Your task to perform on an android device: toggle data saver in the chrome app Image 0: 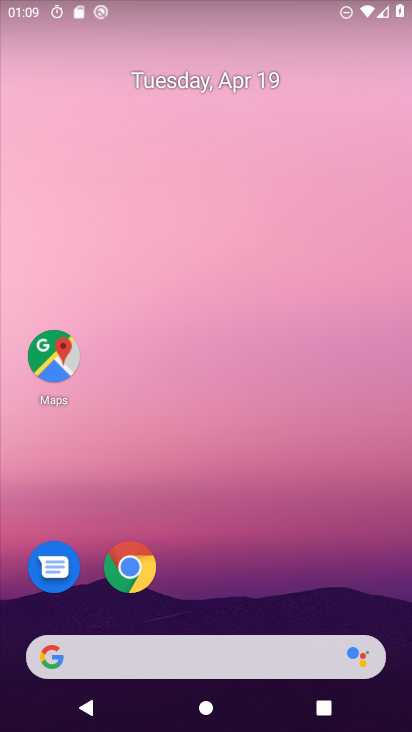
Step 0: drag from (301, 555) to (267, 116)
Your task to perform on an android device: toggle data saver in the chrome app Image 1: 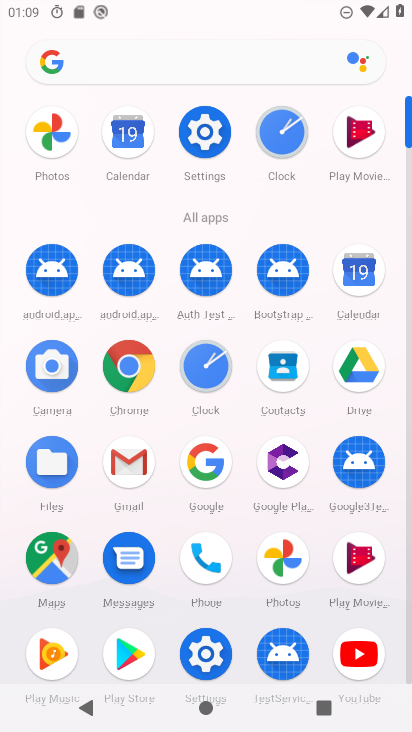
Step 1: click (129, 369)
Your task to perform on an android device: toggle data saver in the chrome app Image 2: 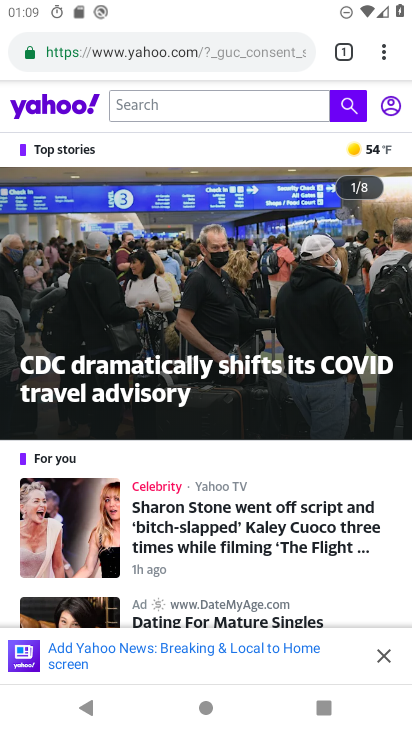
Step 2: click (382, 55)
Your task to perform on an android device: toggle data saver in the chrome app Image 3: 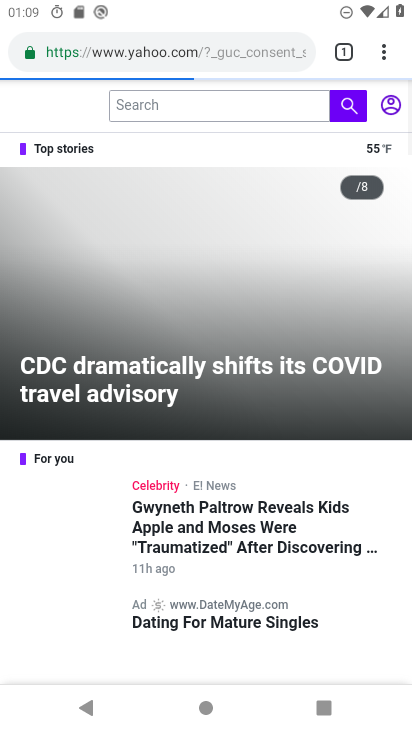
Step 3: drag from (384, 48) to (219, 622)
Your task to perform on an android device: toggle data saver in the chrome app Image 4: 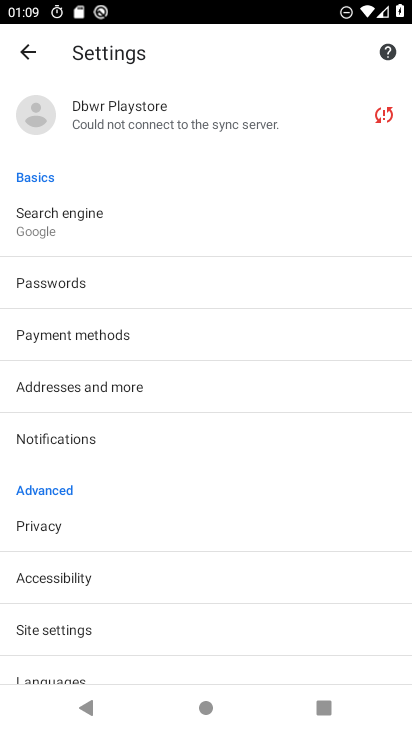
Step 4: click (94, 626)
Your task to perform on an android device: toggle data saver in the chrome app Image 5: 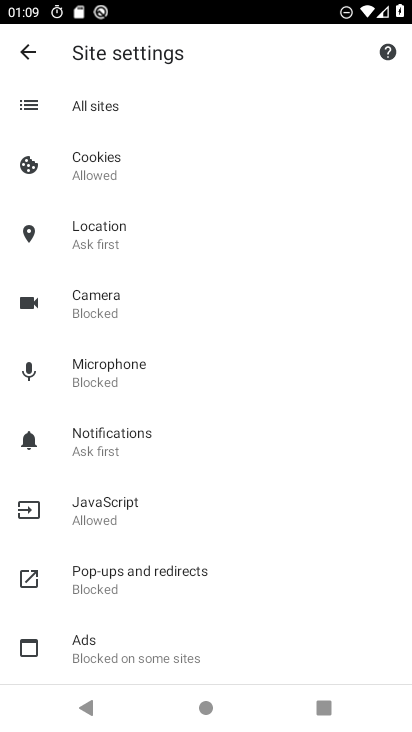
Step 5: drag from (277, 618) to (331, 92)
Your task to perform on an android device: toggle data saver in the chrome app Image 6: 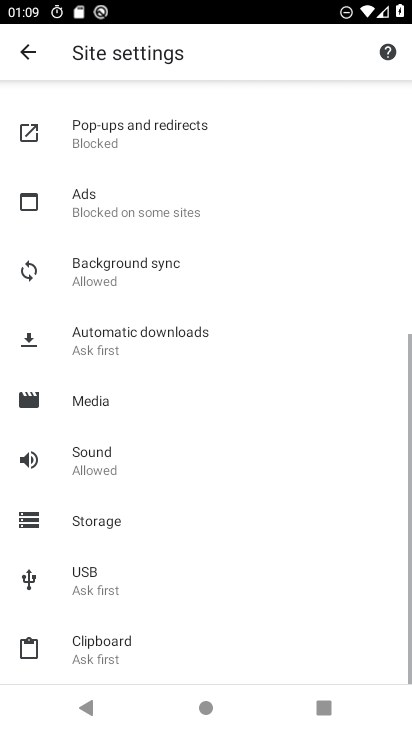
Step 6: drag from (303, 574) to (306, 70)
Your task to perform on an android device: toggle data saver in the chrome app Image 7: 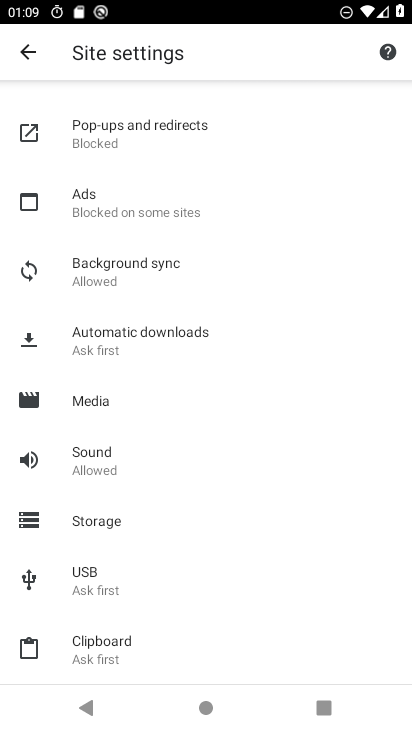
Step 7: drag from (185, 437) to (227, 119)
Your task to perform on an android device: toggle data saver in the chrome app Image 8: 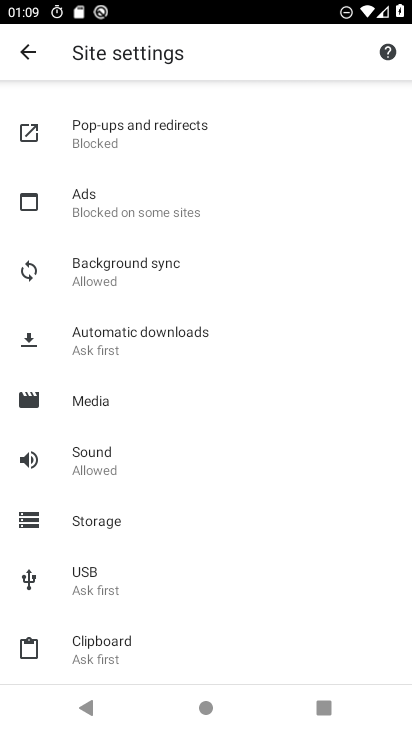
Step 8: click (35, 55)
Your task to perform on an android device: toggle data saver in the chrome app Image 9: 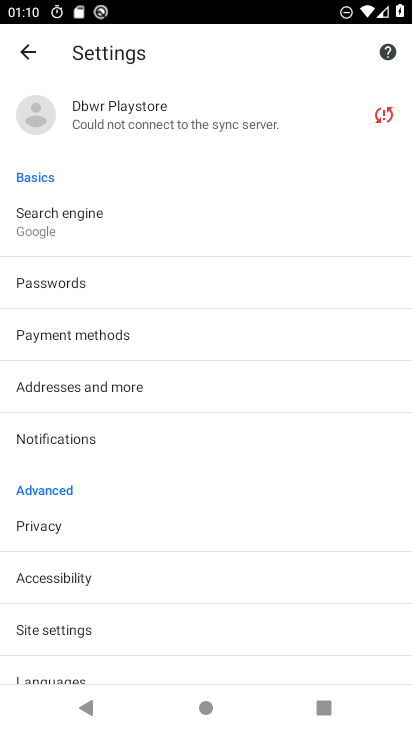
Step 9: drag from (218, 591) to (268, 237)
Your task to perform on an android device: toggle data saver in the chrome app Image 10: 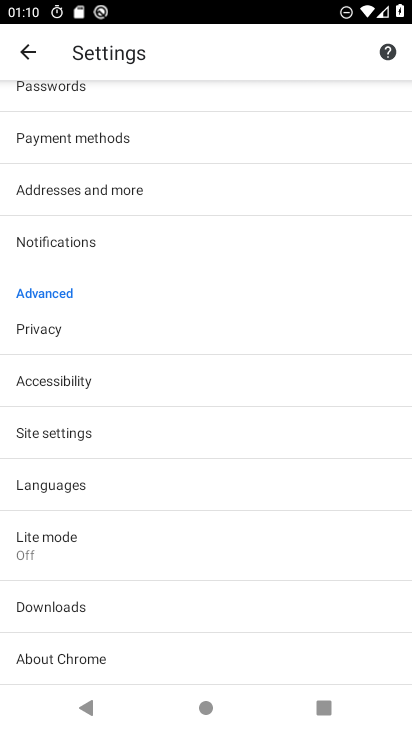
Step 10: click (22, 550)
Your task to perform on an android device: toggle data saver in the chrome app Image 11: 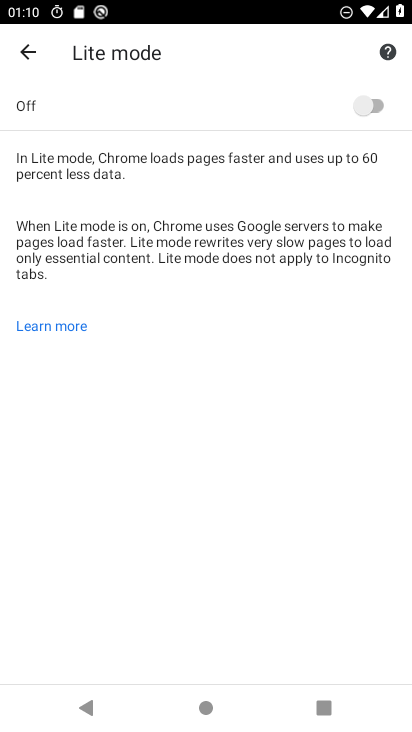
Step 11: click (338, 107)
Your task to perform on an android device: toggle data saver in the chrome app Image 12: 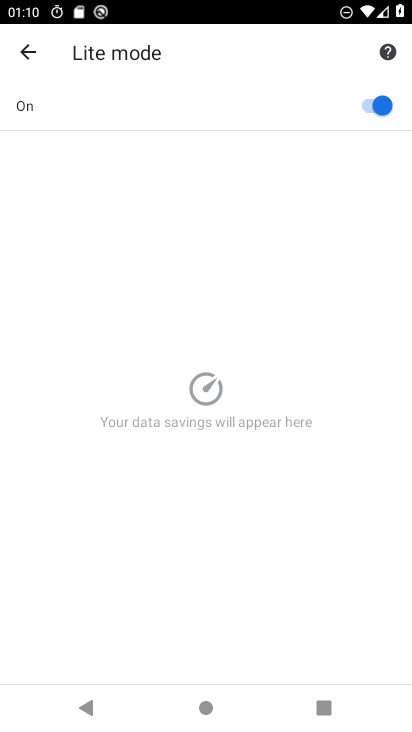
Step 12: task complete